Your task to perform on an android device: open a new tab in the chrome app Image 0: 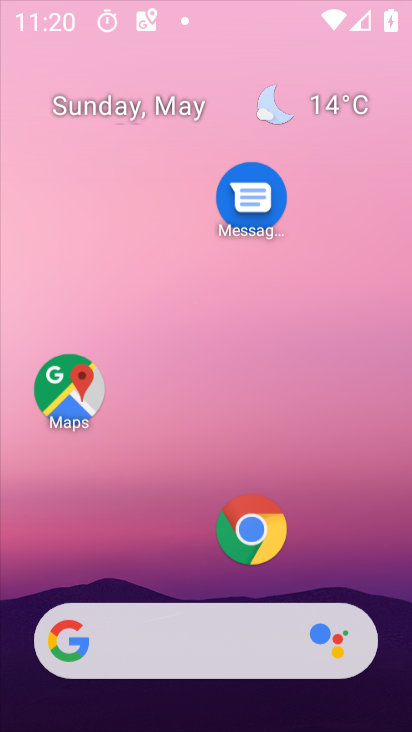
Step 0: click (249, 342)
Your task to perform on an android device: open a new tab in the chrome app Image 1: 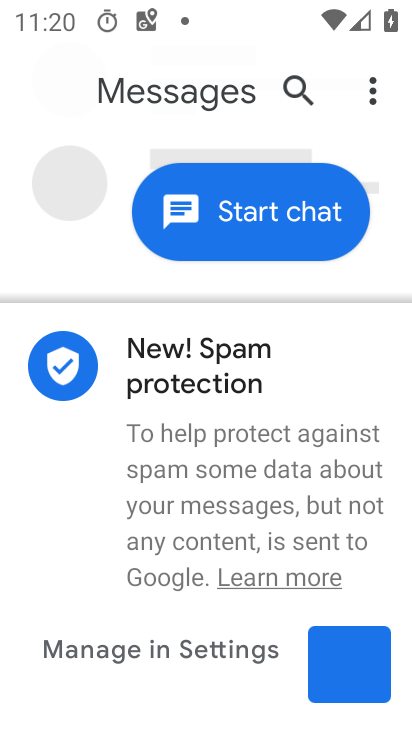
Step 1: press home button
Your task to perform on an android device: open a new tab in the chrome app Image 2: 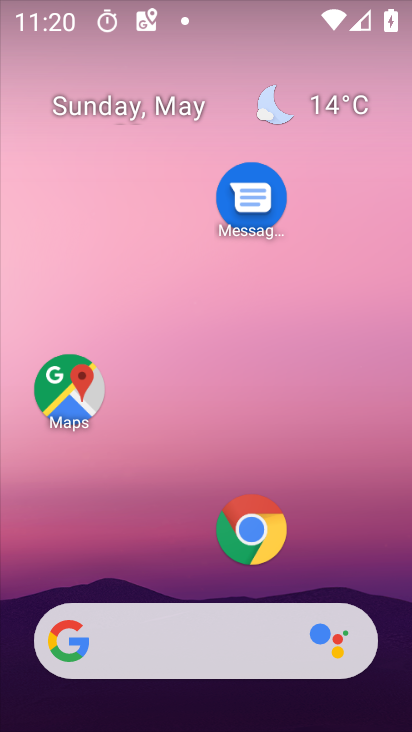
Step 2: drag from (181, 448) to (178, 39)
Your task to perform on an android device: open a new tab in the chrome app Image 3: 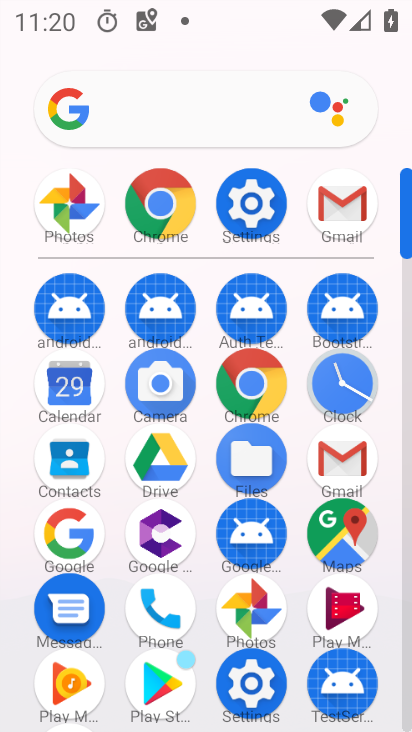
Step 3: click (236, 394)
Your task to perform on an android device: open a new tab in the chrome app Image 4: 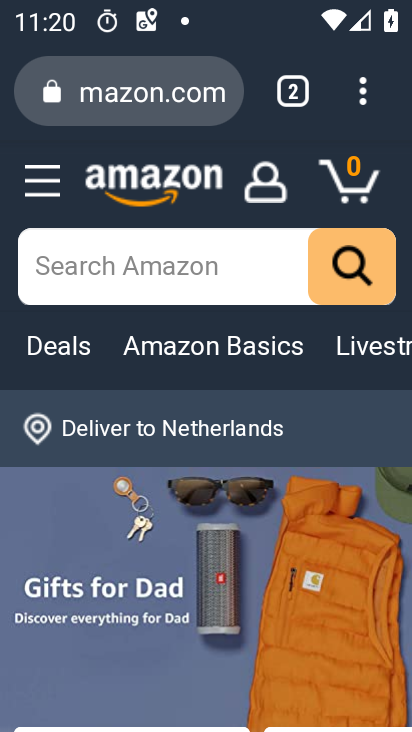
Step 4: click (369, 89)
Your task to perform on an android device: open a new tab in the chrome app Image 5: 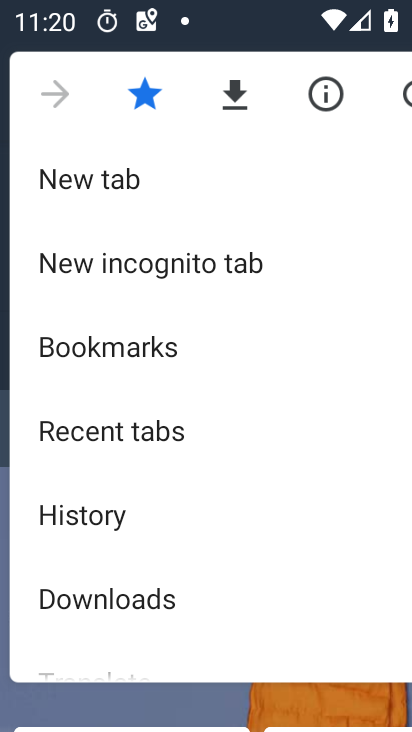
Step 5: click (117, 178)
Your task to perform on an android device: open a new tab in the chrome app Image 6: 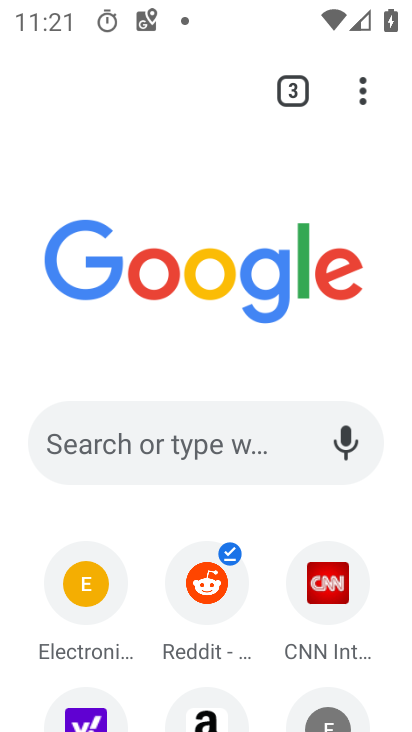
Step 6: task complete